Your task to perform on an android device: allow cookies in the chrome app Image 0: 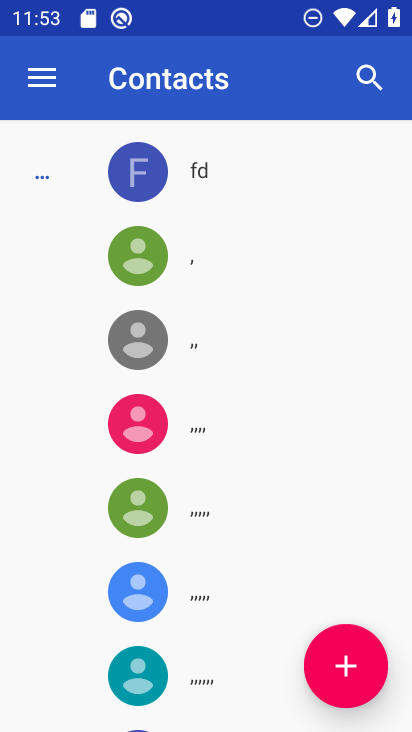
Step 0: press home button
Your task to perform on an android device: allow cookies in the chrome app Image 1: 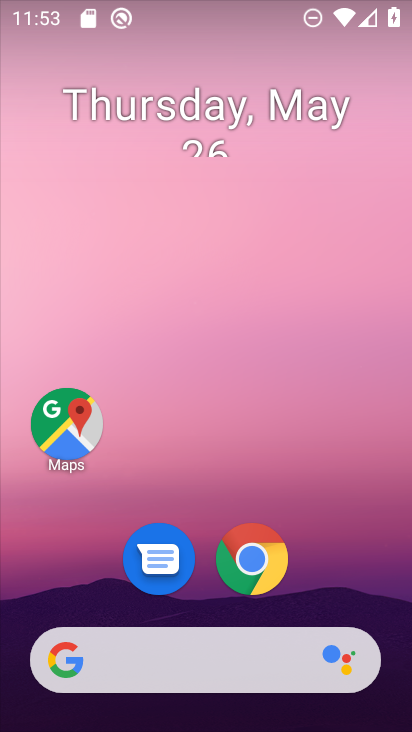
Step 1: click (251, 562)
Your task to perform on an android device: allow cookies in the chrome app Image 2: 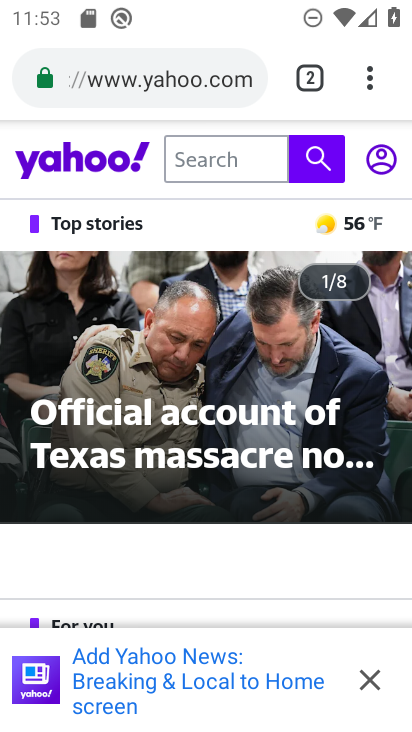
Step 2: click (357, 79)
Your task to perform on an android device: allow cookies in the chrome app Image 3: 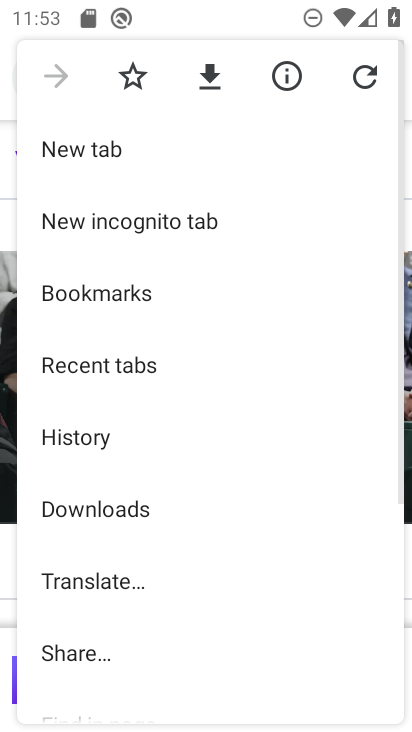
Step 3: drag from (189, 650) to (194, 206)
Your task to perform on an android device: allow cookies in the chrome app Image 4: 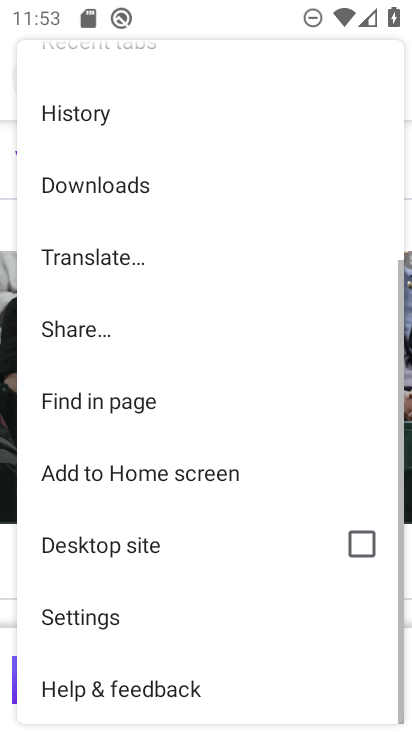
Step 4: click (69, 609)
Your task to perform on an android device: allow cookies in the chrome app Image 5: 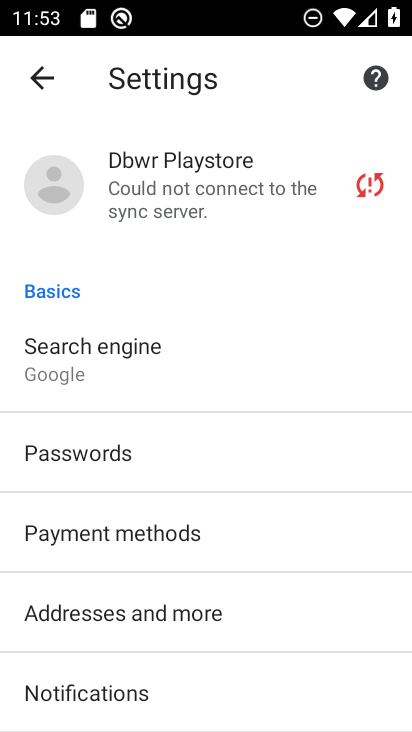
Step 5: drag from (243, 661) to (292, 146)
Your task to perform on an android device: allow cookies in the chrome app Image 6: 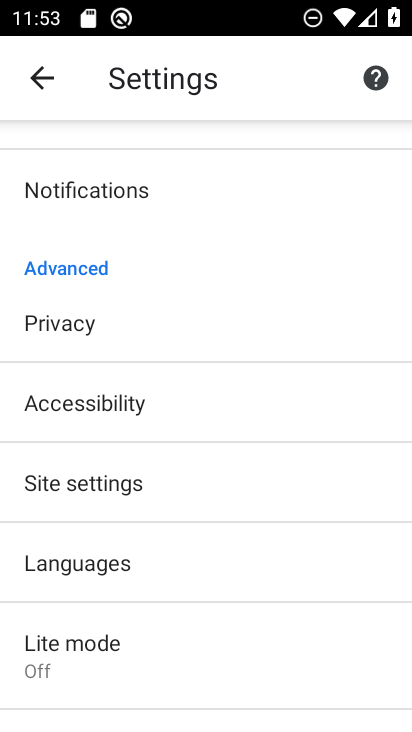
Step 6: click (120, 485)
Your task to perform on an android device: allow cookies in the chrome app Image 7: 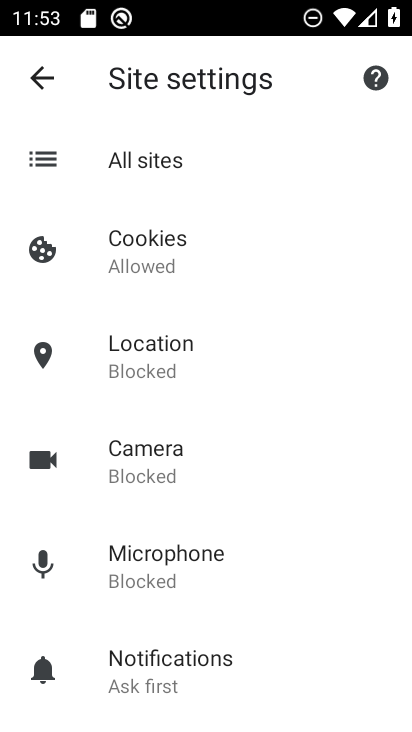
Step 7: click (167, 257)
Your task to perform on an android device: allow cookies in the chrome app Image 8: 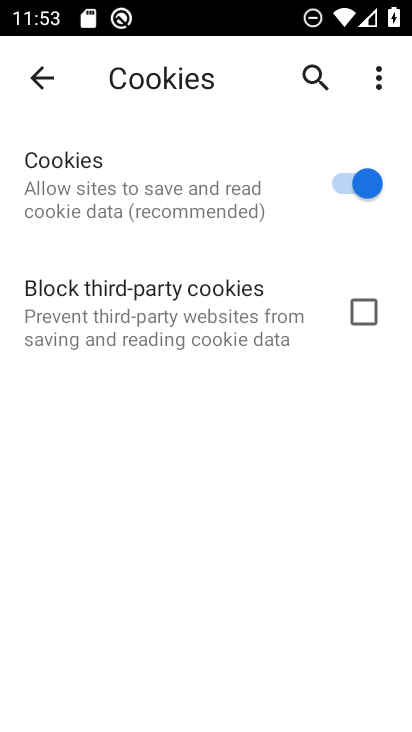
Step 8: task complete